Your task to perform on an android device: What's the weather going to be this weekend? Image 0: 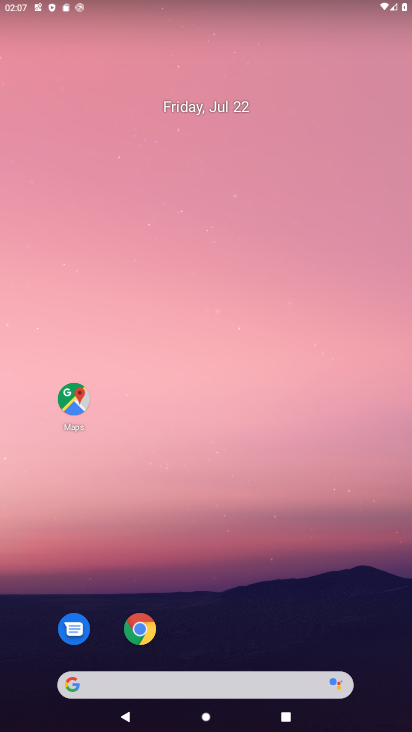
Step 0: click (404, 482)
Your task to perform on an android device: What's the weather going to be this weekend? Image 1: 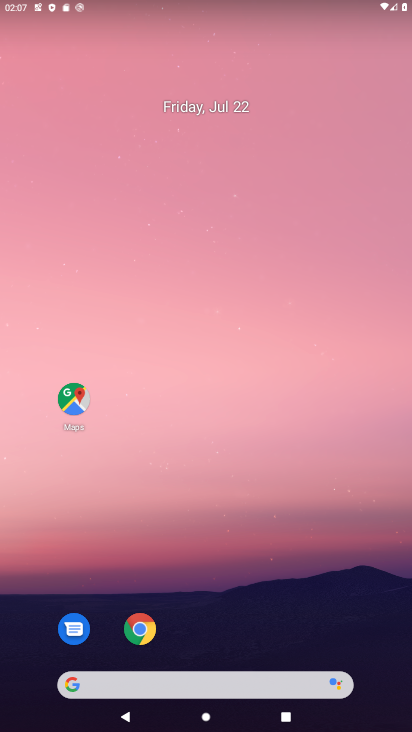
Step 1: click (137, 682)
Your task to perform on an android device: What's the weather going to be this weekend? Image 2: 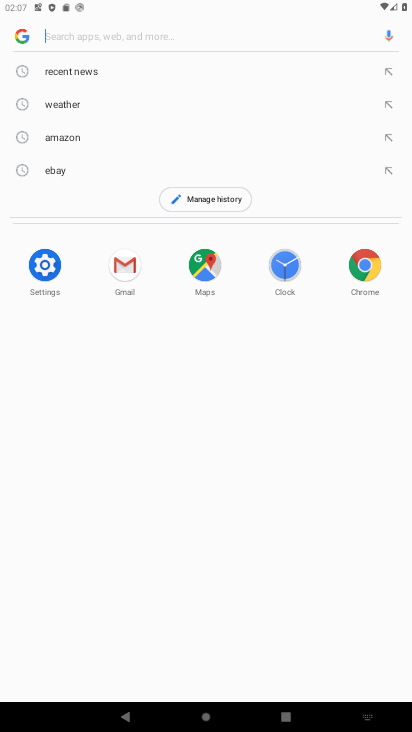
Step 2: click (89, 75)
Your task to perform on an android device: What's the weather going to be this weekend? Image 3: 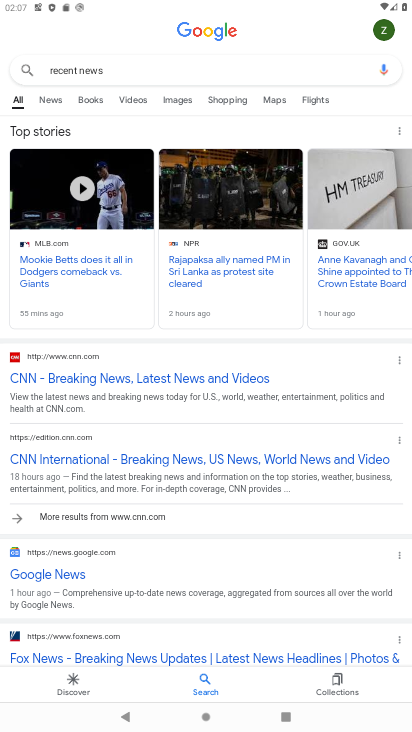
Step 3: task complete